Your task to perform on an android device: What is the news today? Image 0: 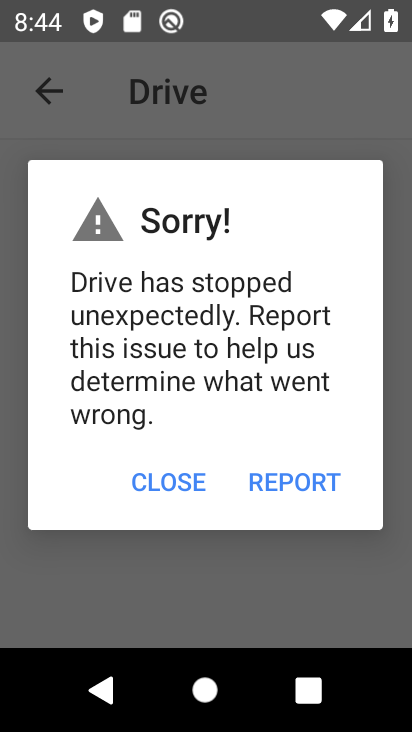
Step 0: press home button
Your task to perform on an android device: What is the news today? Image 1: 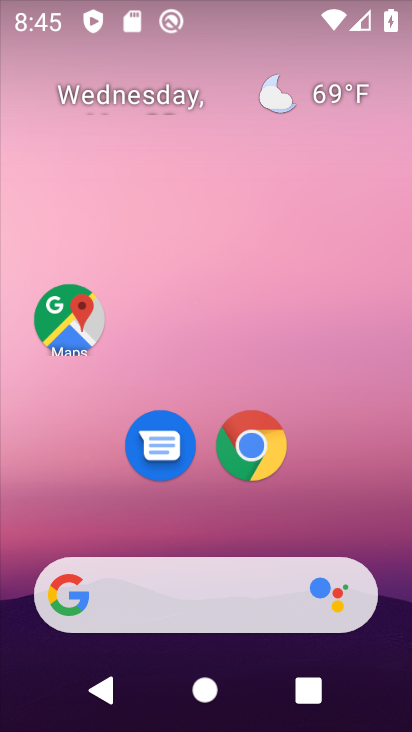
Step 1: drag from (282, 528) to (309, 46)
Your task to perform on an android device: What is the news today? Image 2: 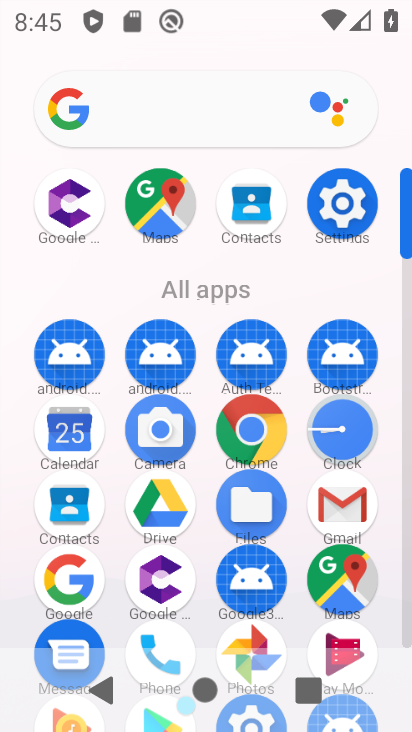
Step 2: click (250, 429)
Your task to perform on an android device: What is the news today? Image 3: 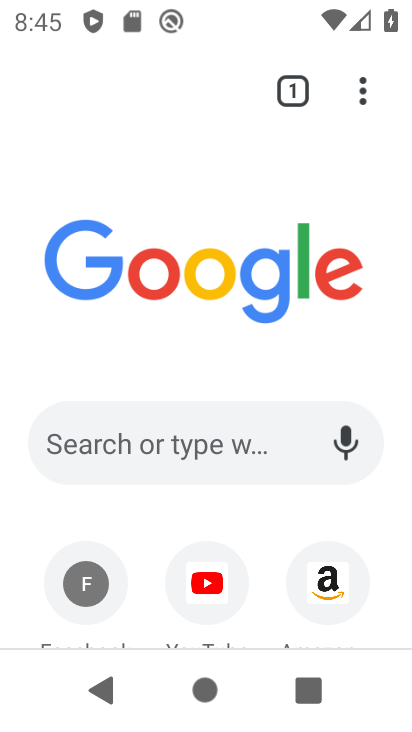
Step 3: click (148, 443)
Your task to perform on an android device: What is the news today? Image 4: 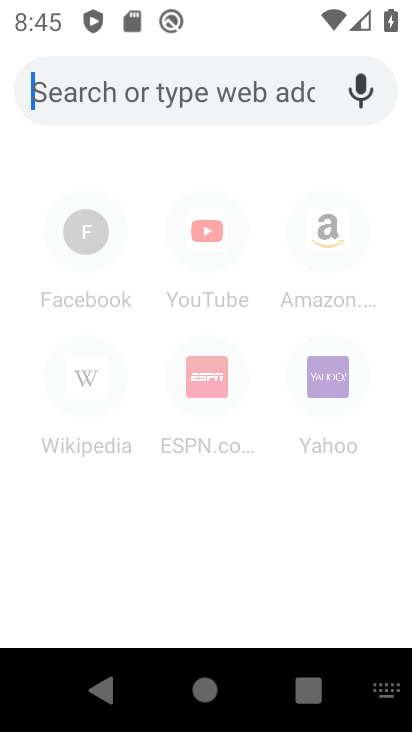
Step 4: type "What is the news today?"
Your task to perform on an android device: What is the news today? Image 5: 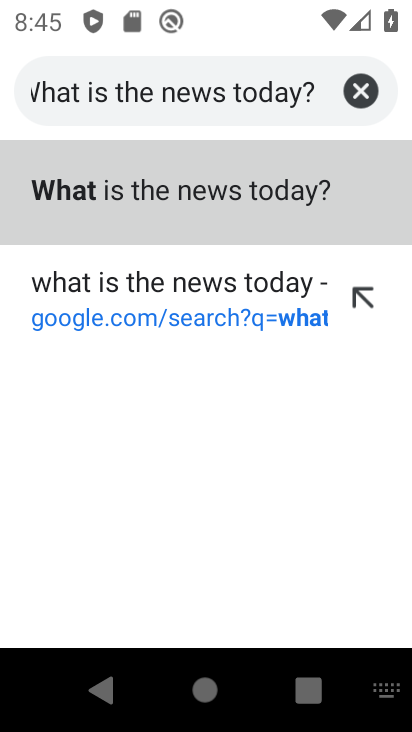
Step 5: click (149, 199)
Your task to perform on an android device: What is the news today? Image 6: 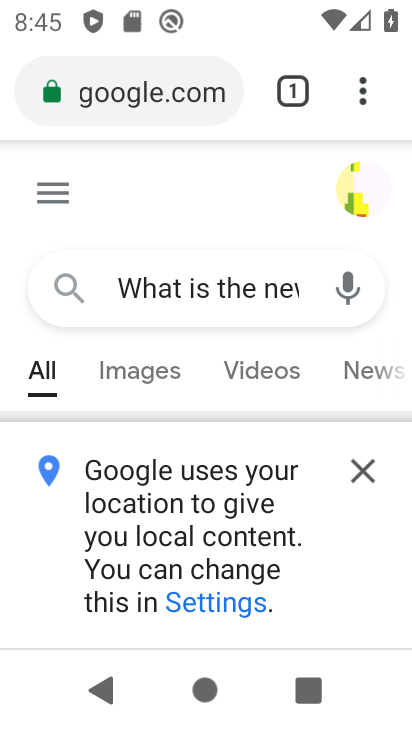
Step 6: click (360, 474)
Your task to perform on an android device: What is the news today? Image 7: 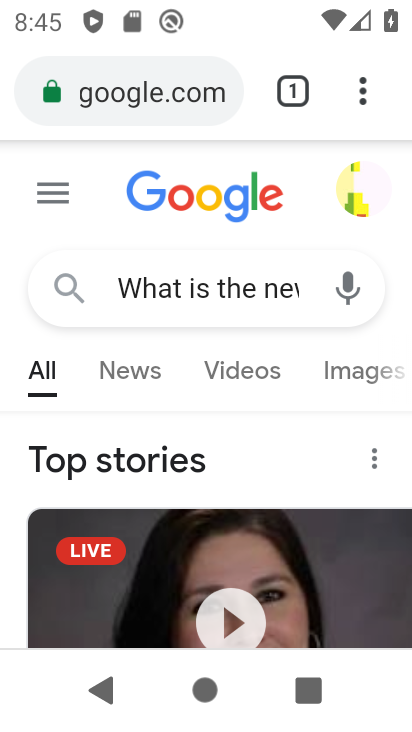
Step 7: click (139, 376)
Your task to perform on an android device: What is the news today? Image 8: 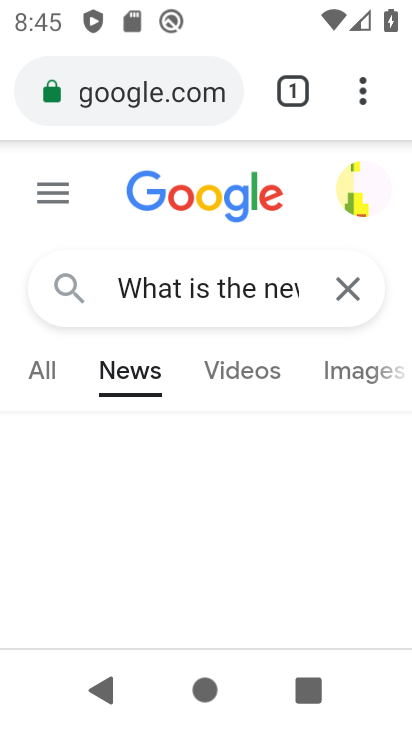
Step 8: task complete